Your task to perform on an android device: clear history in the chrome app Image 0: 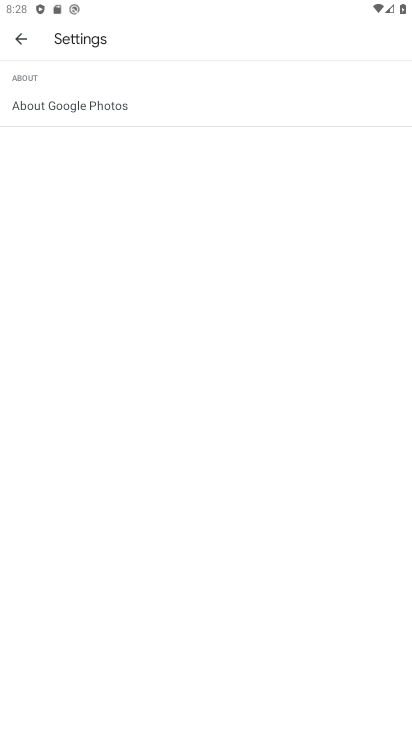
Step 0: press home button
Your task to perform on an android device: clear history in the chrome app Image 1: 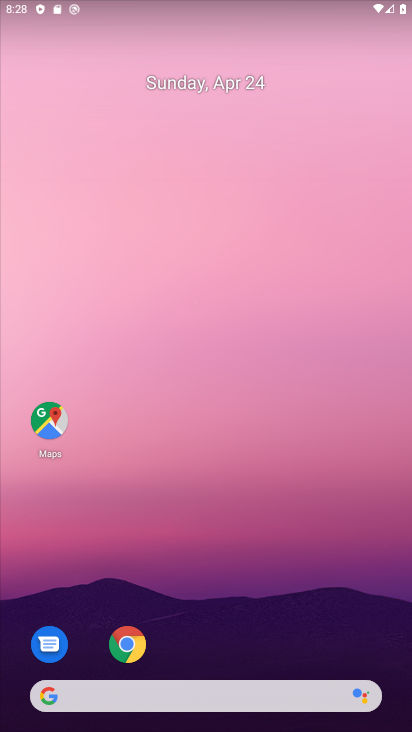
Step 1: click (299, 28)
Your task to perform on an android device: clear history in the chrome app Image 2: 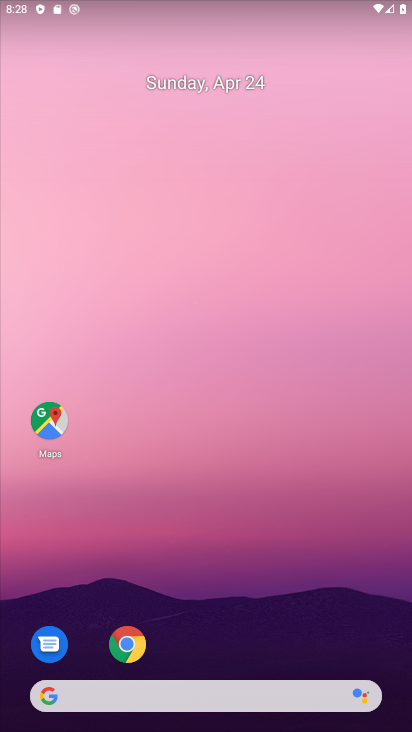
Step 2: drag from (198, 603) to (329, 38)
Your task to perform on an android device: clear history in the chrome app Image 3: 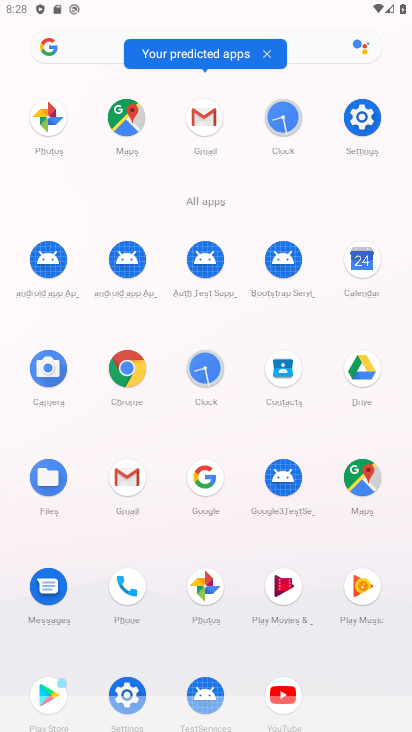
Step 3: click (132, 364)
Your task to perform on an android device: clear history in the chrome app Image 4: 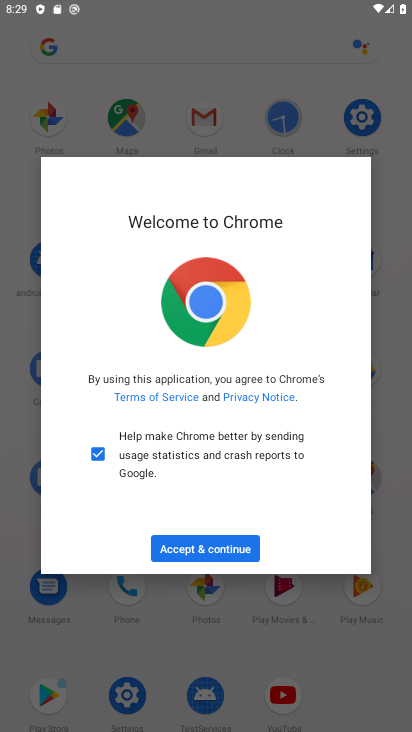
Step 4: click (231, 554)
Your task to perform on an android device: clear history in the chrome app Image 5: 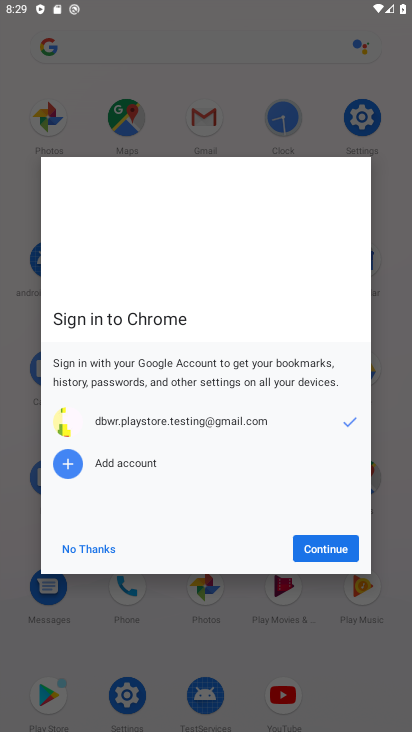
Step 5: click (353, 548)
Your task to perform on an android device: clear history in the chrome app Image 6: 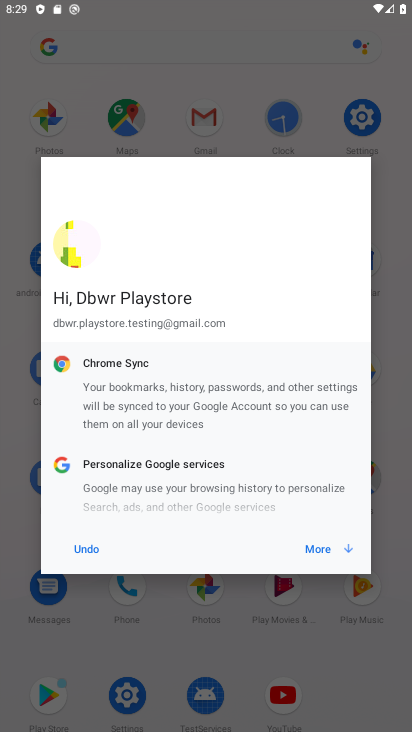
Step 6: click (337, 543)
Your task to perform on an android device: clear history in the chrome app Image 7: 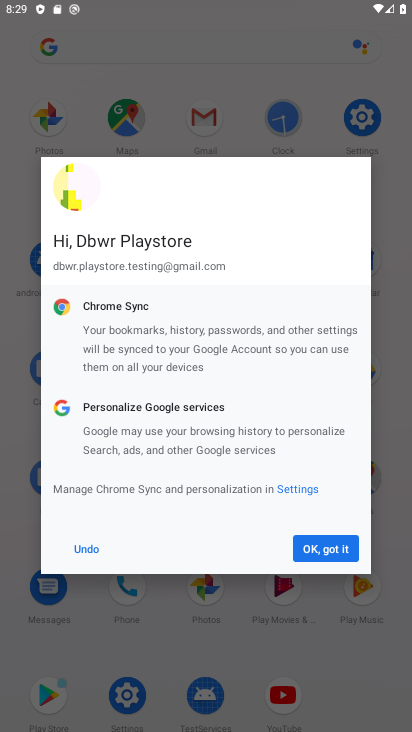
Step 7: click (336, 544)
Your task to perform on an android device: clear history in the chrome app Image 8: 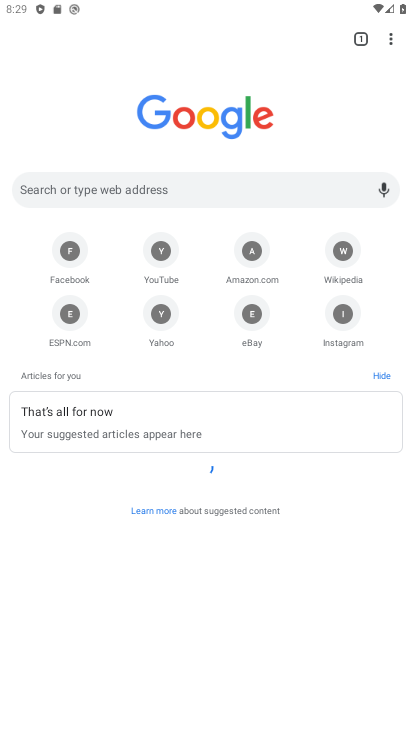
Step 8: task complete